Your task to perform on an android device: Open Android settings Image 0: 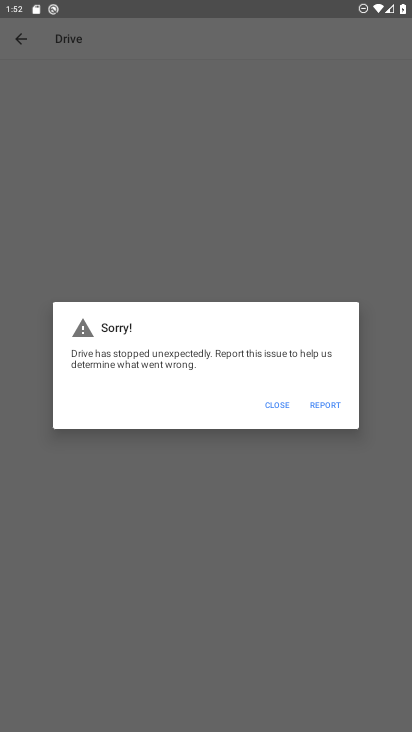
Step 0: press home button
Your task to perform on an android device: Open Android settings Image 1: 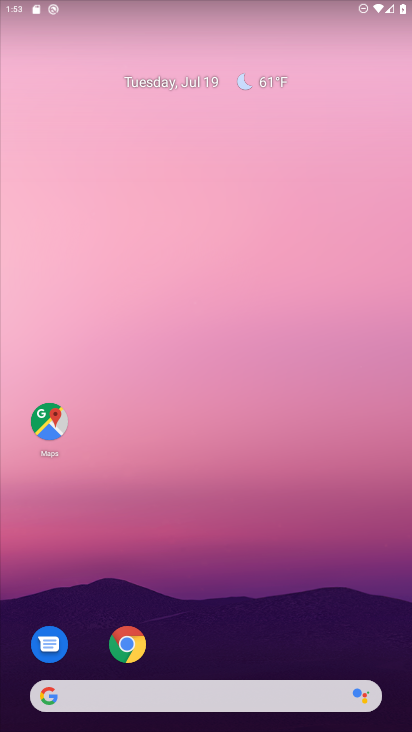
Step 1: drag from (400, 675) to (323, 89)
Your task to perform on an android device: Open Android settings Image 2: 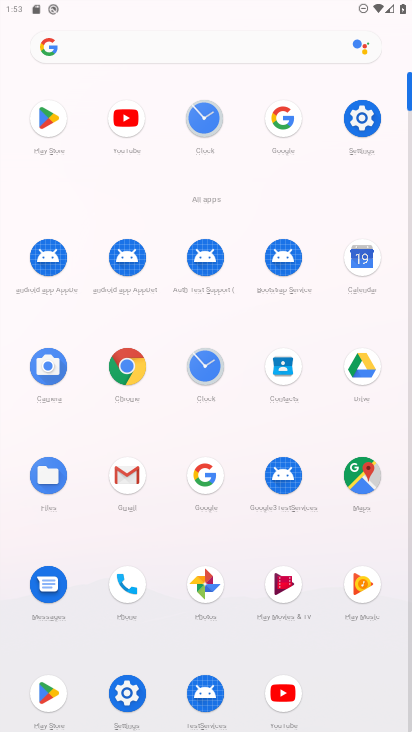
Step 2: click (361, 134)
Your task to perform on an android device: Open Android settings Image 3: 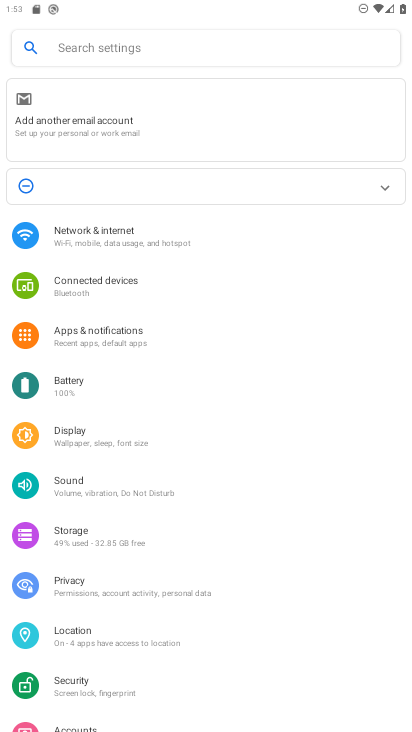
Step 3: task complete